Your task to perform on an android device: turn off improve location accuracy Image 0: 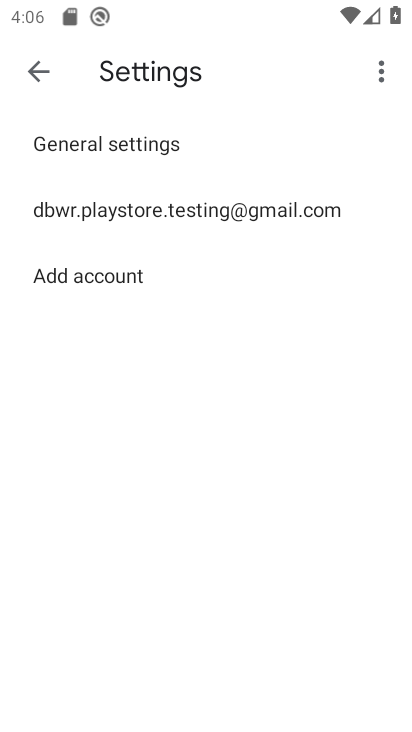
Step 0: press home button
Your task to perform on an android device: turn off improve location accuracy Image 1: 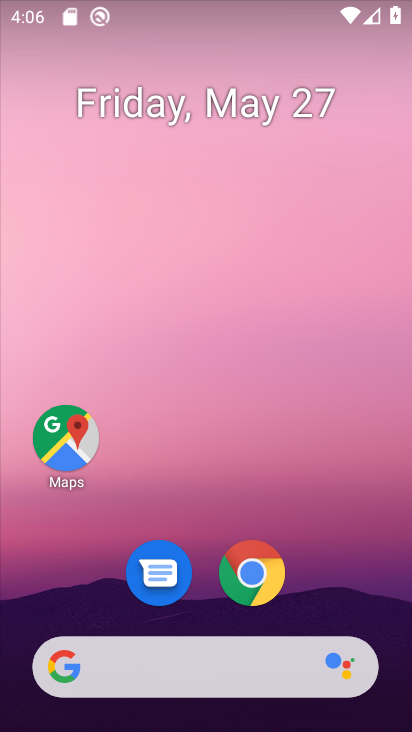
Step 1: drag from (321, 578) to (318, 47)
Your task to perform on an android device: turn off improve location accuracy Image 2: 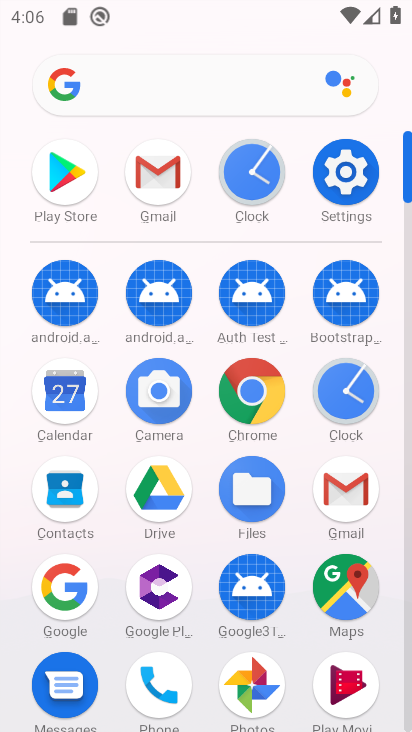
Step 2: click (340, 164)
Your task to perform on an android device: turn off improve location accuracy Image 3: 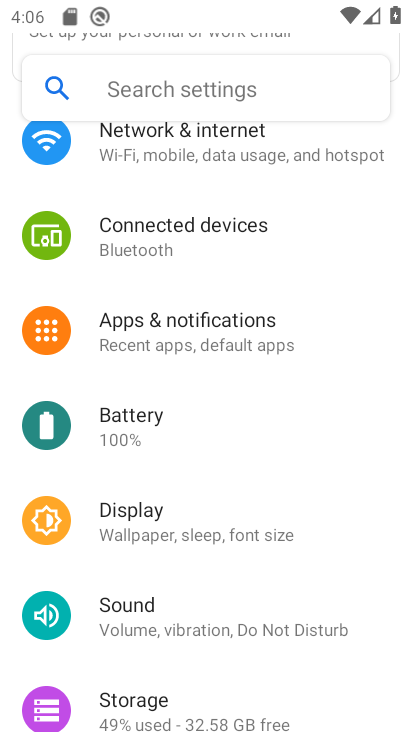
Step 3: drag from (250, 688) to (205, 174)
Your task to perform on an android device: turn off improve location accuracy Image 4: 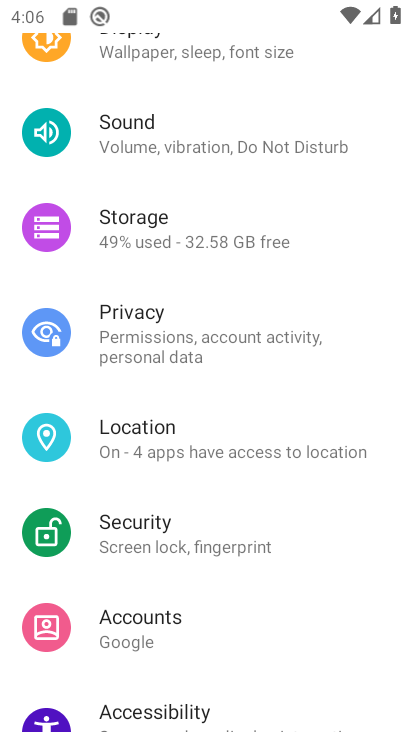
Step 4: click (212, 426)
Your task to perform on an android device: turn off improve location accuracy Image 5: 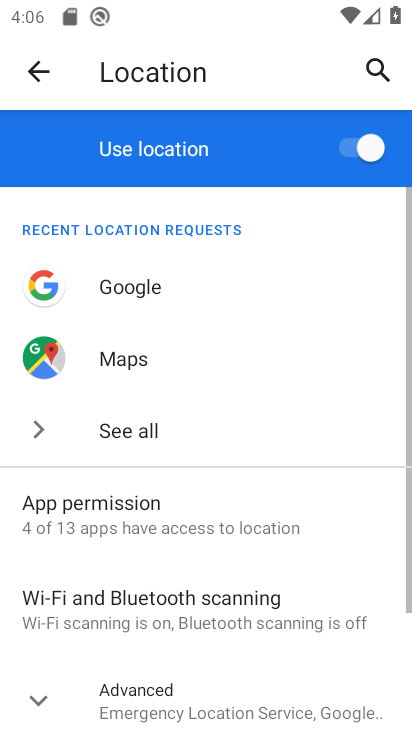
Step 5: drag from (205, 513) to (218, 219)
Your task to perform on an android device: turn off improve location accuracy Image 6: 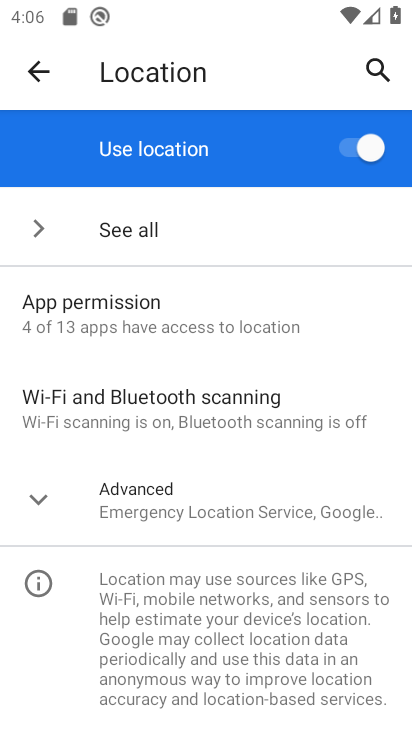
Step 6: click (38, 495)
Your task to perform on an android device: turn off improve location accuracy Image 7: 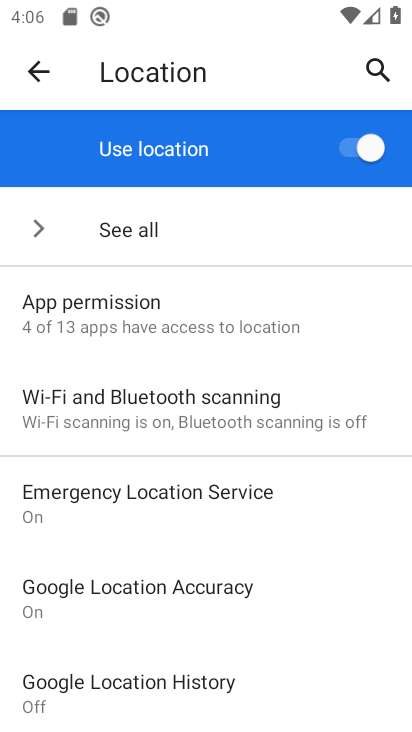
Step 7: click (196, 610)
Your task to perform on an android device: turn off improve location accuracy Image 8: 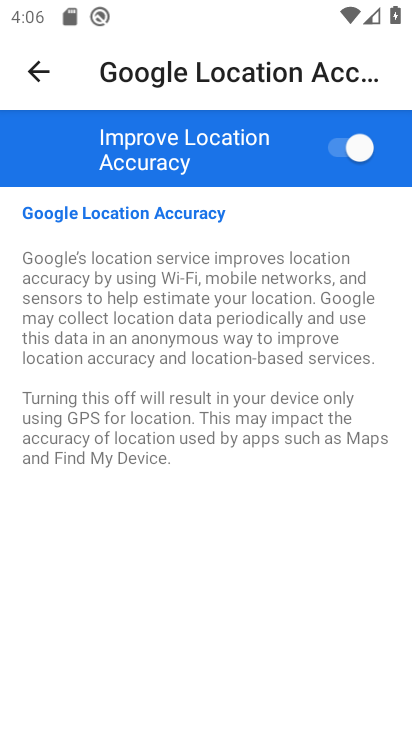
Step 8: click (338, 144)
Your task to perform on an android device: turn off improve location accuracy Image 9: 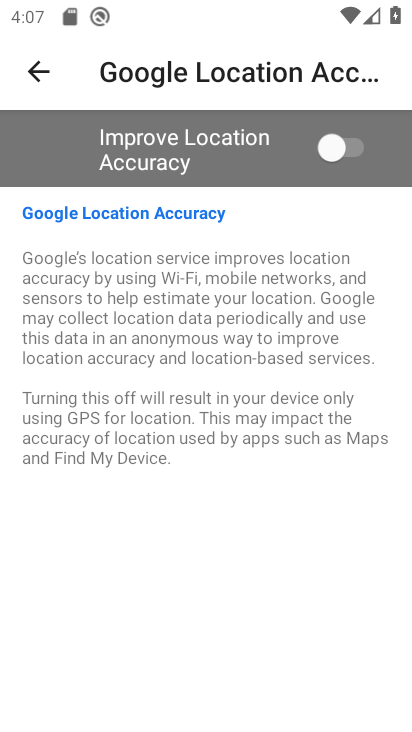
Step 9: task complete